Your task to perform on an android device: Go to ESPN.com Image 0: 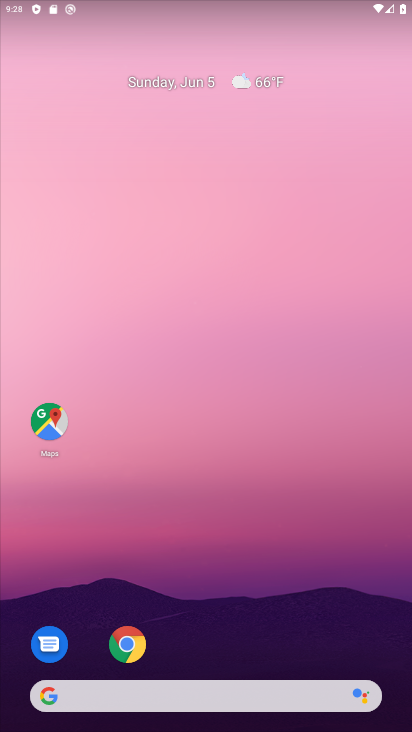
Step 0: click (124, 636)
Your task to perform on an android device: Go to ESPN.com Image 1: 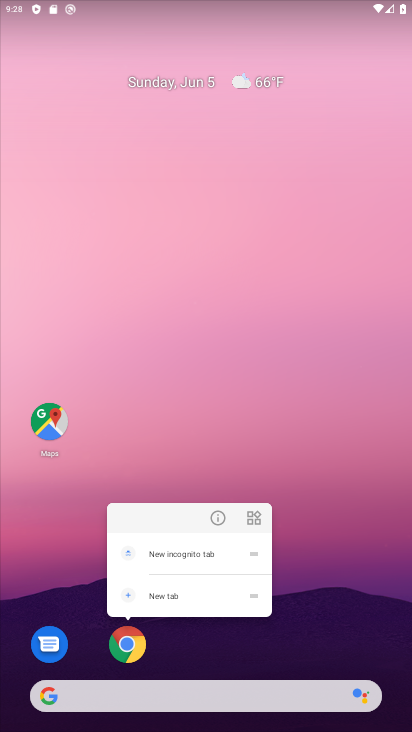
Step 1: click (124, 637)
Your task to perform on an android device: Go to ESPN.com Image 2: 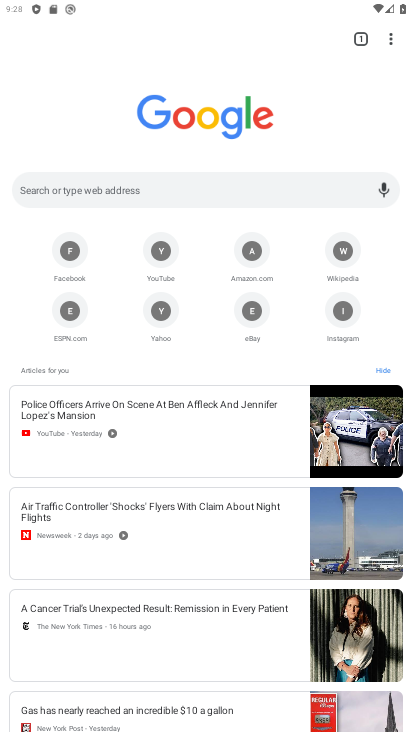
Step 2: click (73, 327)
Your task to perform on an android device: Go to ESPN.com Image 3: 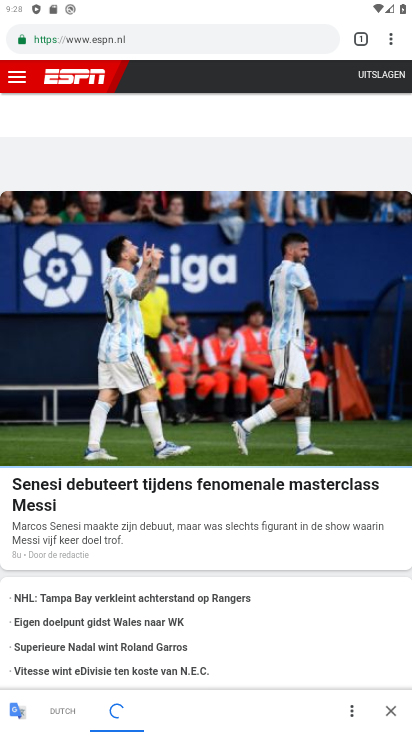
Step 3: task complete